Your task to perform on an android device: Go to display settings Image 0: 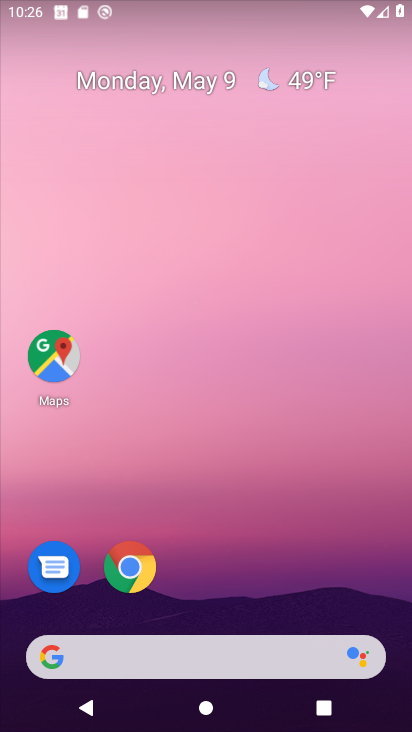
Step 0: drag from (182, 638) to (185, 219)
Your task to perform on an android device: Go to display settings Image 1: 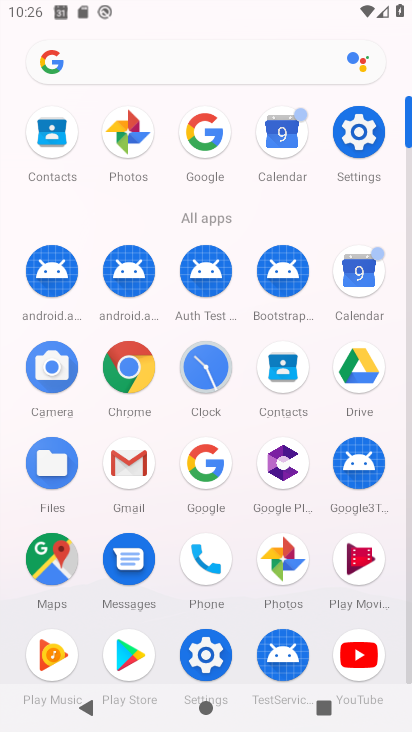
Step 1: click (365, 140)
Your task to perform on an android device: Go to display settings Image 2: 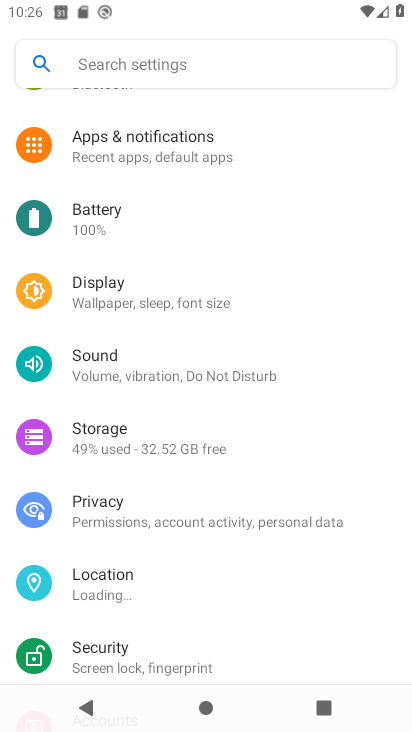
Step 2: click (125, 296)
Your task to perform on an android device: Go to display settings Image 3: 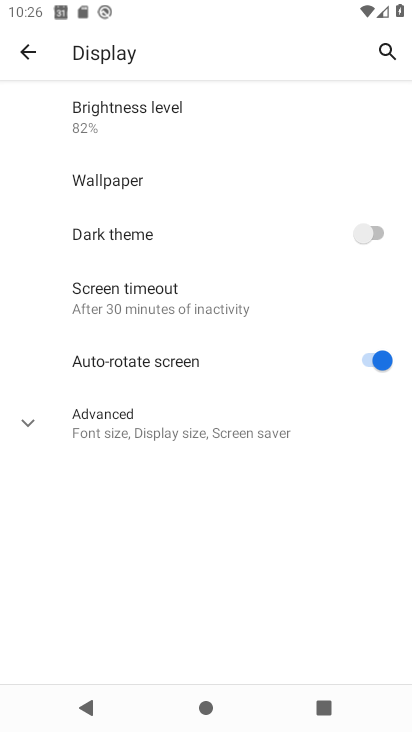
Step 3: click (133, 429)
Your task to perform on an android device: Go to display settings Image 4: 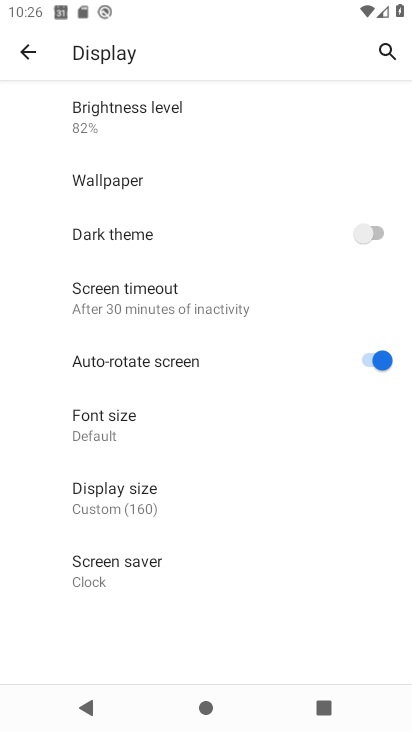
Step 4: task complete